Your task to perform on an android device: check out phone information Image 0: 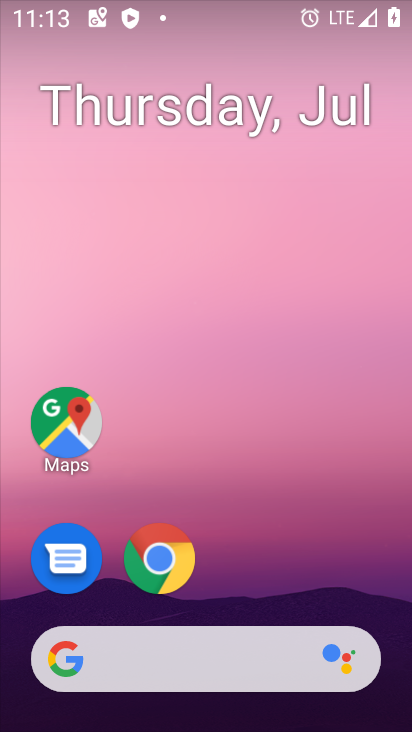
Step 0: drag from (316, 546) to (306, 71)
Your task to perform on an android device: check out phone information Image 1: 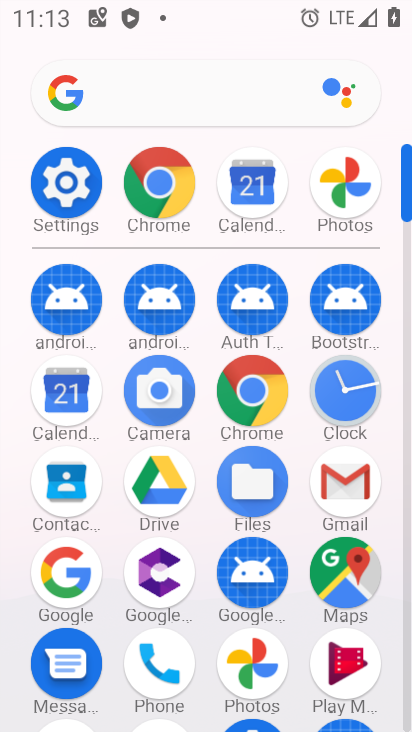
Step 1: drag from (398, 593) to (398, 348)
Your task to perform on an android device: check out phone information Image 2: 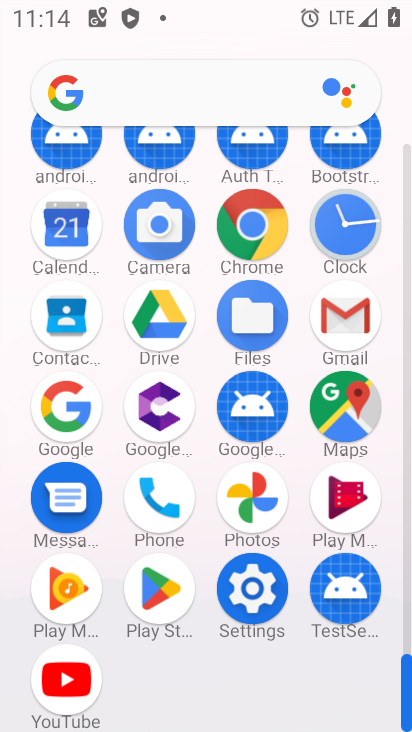
Step 2: click (155, 503)
Your task to perform on an android device: check out phone information Image 3: 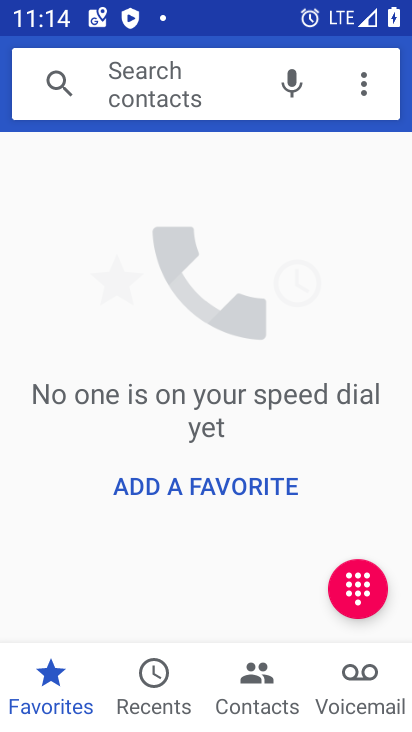
Step 3: task complete